Your task to perform on an android device: Go to Yahoo.com Image 0: 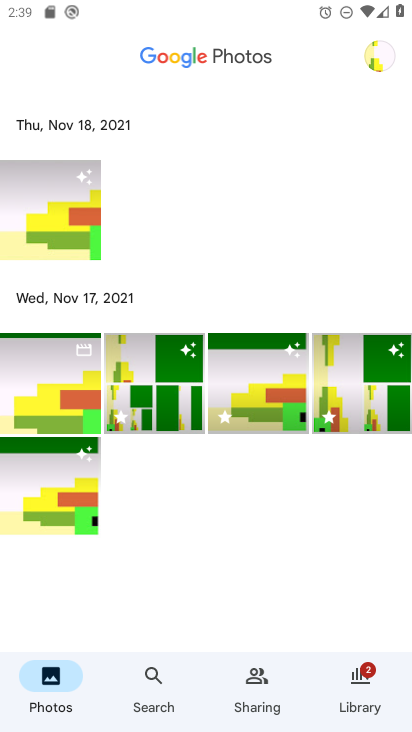
Step 0: press home button
Your task to perform on an android device: Go to Yahoo.com Image 1: 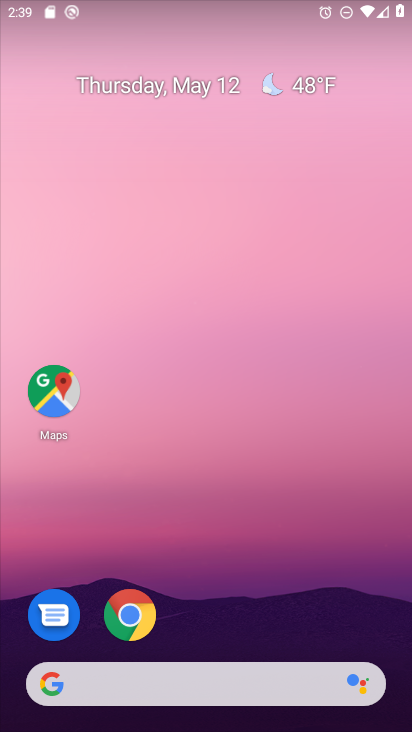
Step 1: drag from (329, 666) to (362, 83)
Your task to perform on an android device: Go to Yahoo.com Image 2: 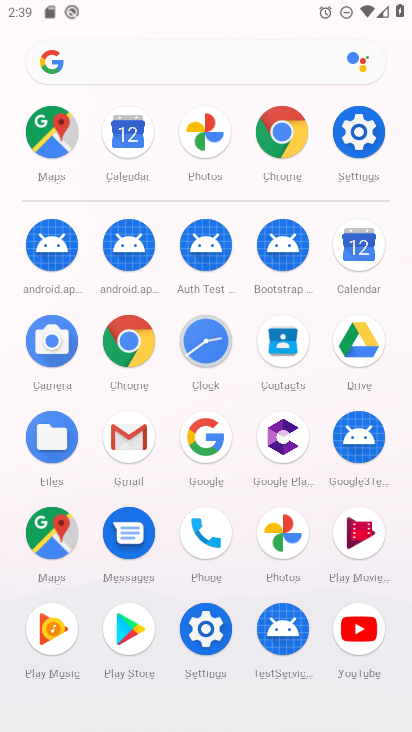
Step 2: click (148, 340)
Your task to perform on an android device: Go to Yahoo.com Image 3: 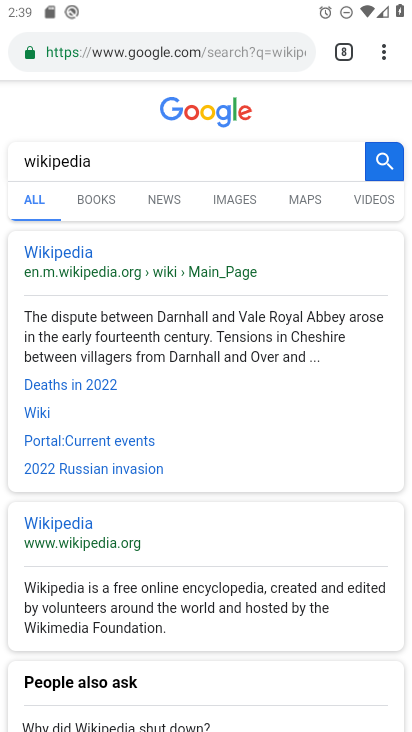
Step 3: drag from (382, 54) to (239, 109)
Your task to perform on an android device: Go to Yahoo.com Image 4: 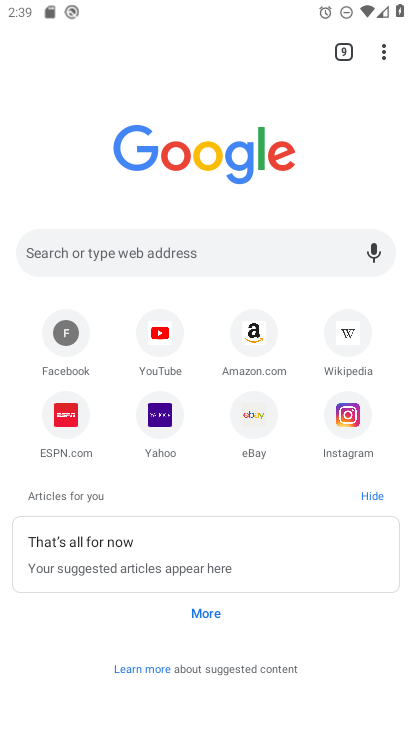
Step 4: click (164, 416)
Your task to perform on an android device: Go to Yahoo.com Image 5: 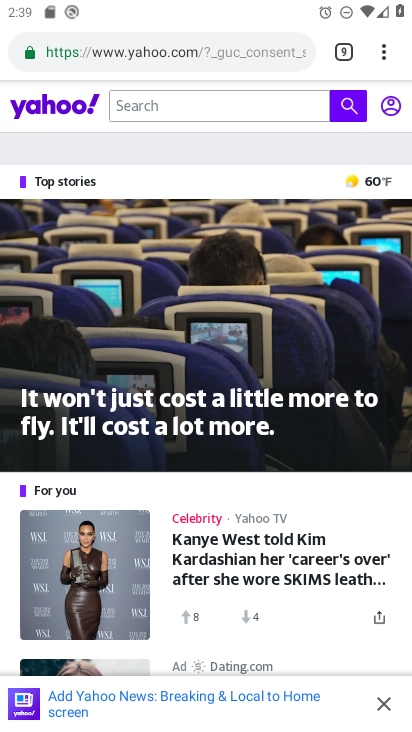
Step 5: task complete